Your task to perform on an android device: Open Google Chrome Image 0: 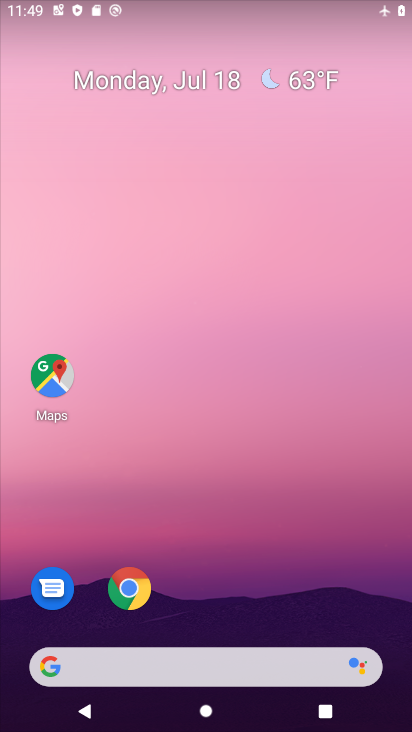
Step 0: drag from (331, 555) to (387, 53)
Your task to perform on an android device: Open Google Chrome Image 1: 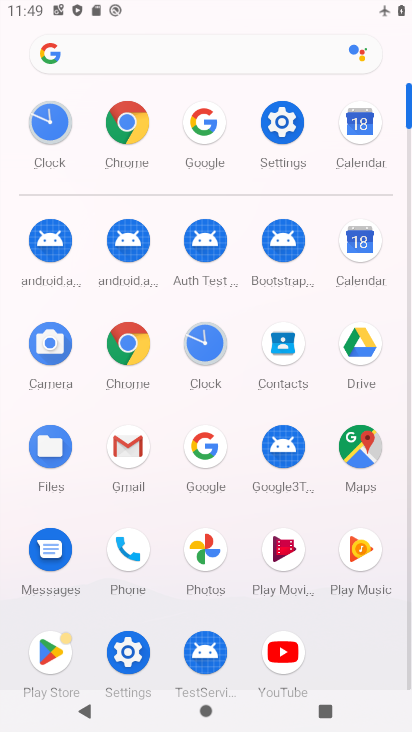
Step 1: click (137, 123)
Your task to perform on an android device: Open Google Chrome Image 2: 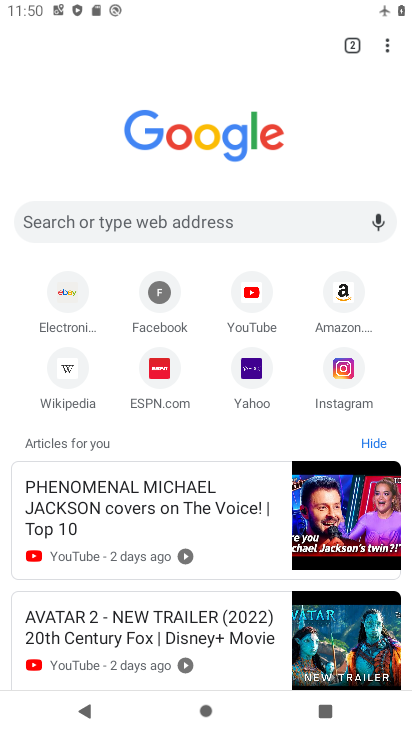
Step 2: task complete